Your task to perform on an android device: see creations saved in the google photos Image 0: 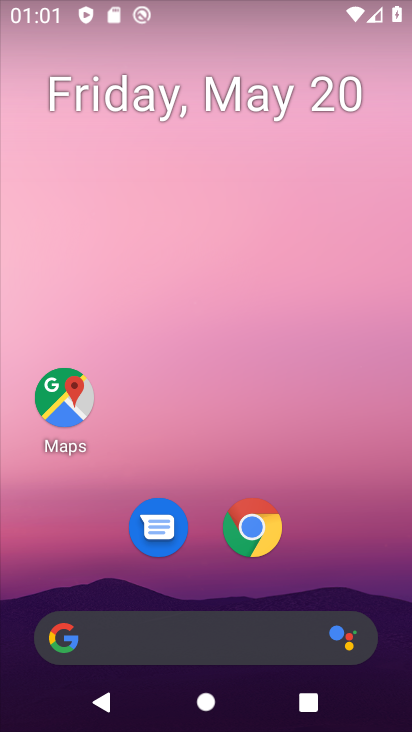
Step 0: drag from (208, 584) to (243, 56)
Your task to perform on an android device: see creations saved in the google photos Image 1: 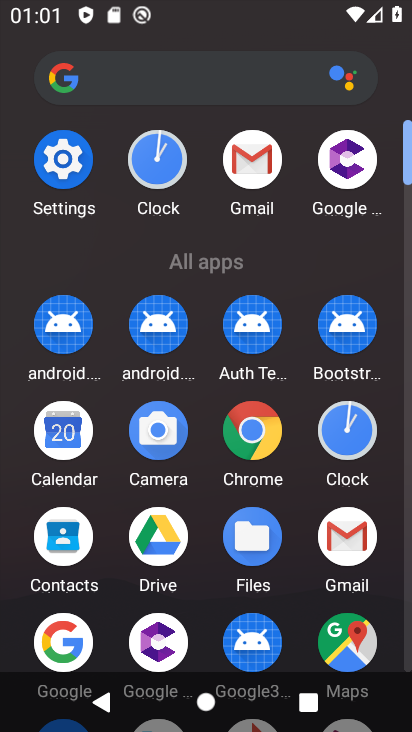
Step 1: drag from (204, 594) to (227, 93)
Your task to perform on an android device: see creations saved in the google photos Image 2: 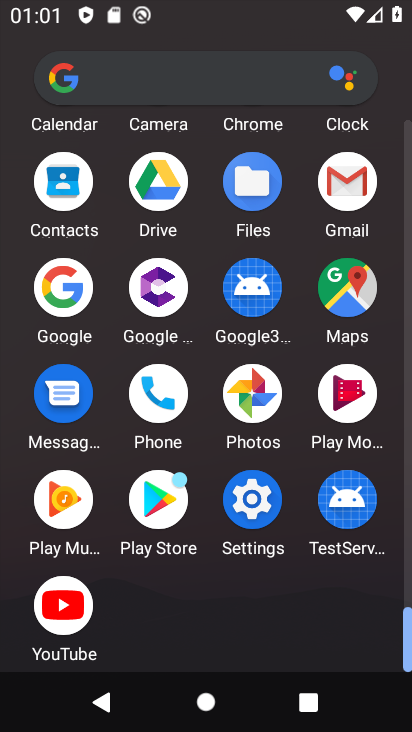
Step 2: click (248, 384)
Your task to perform on an android device: see creations saved in the google photos Image 3: 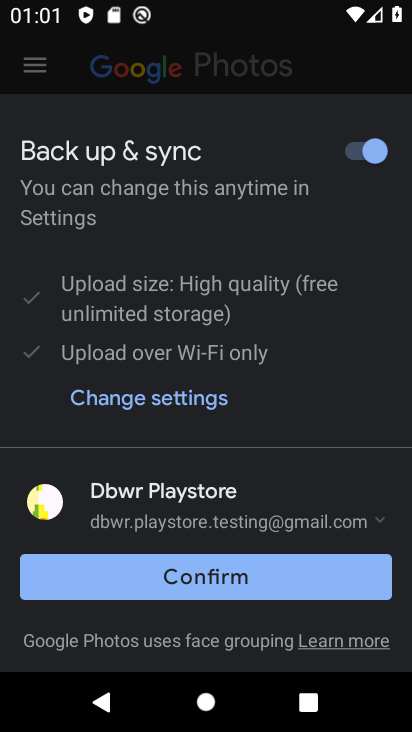
Step 3: click (210, 577)
Your task to perform on an android device: see creations saved in the google photos Image 4: 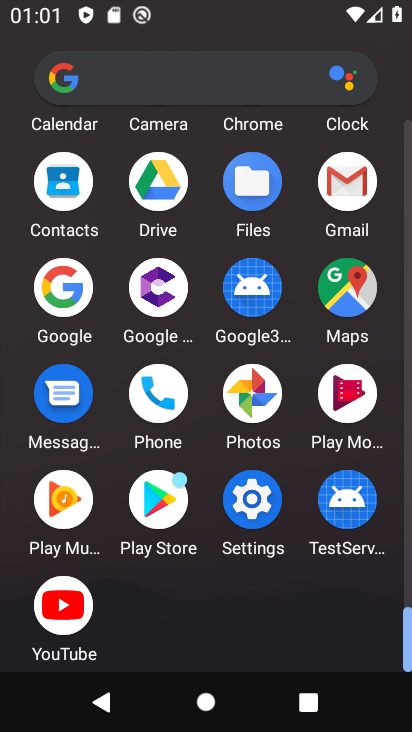
Step 4: click (252, 393)
Your task to perform on an android device: see creations saved in the google photos Image 5: 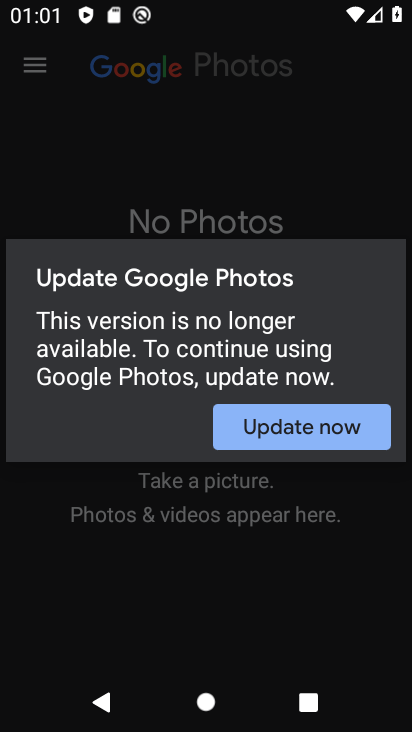
Step 5: click (296, 428)
Your task to perform on an android device: see creations saved in the google photos Image 6: 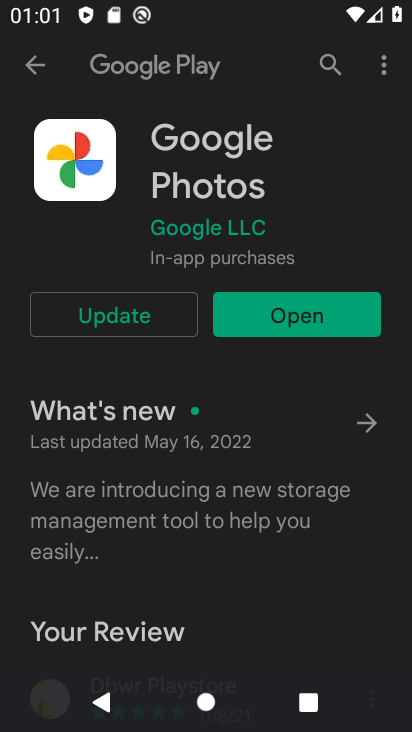
Step 6: click (124, 320)
Your task to perform on an android device: see creations saved in the google photos Image 7: 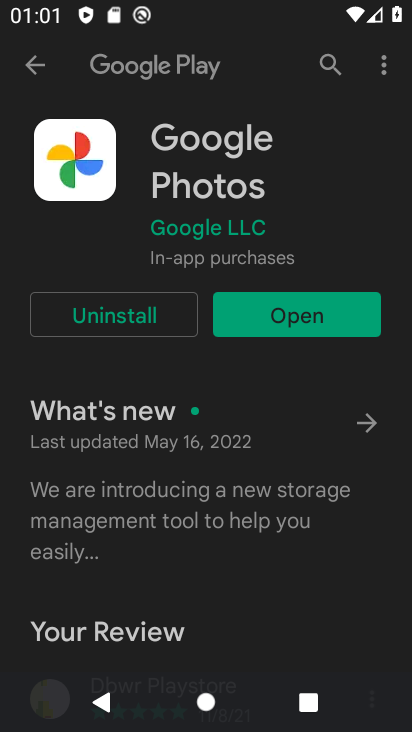
Step 7: click (285, 319)
Your task to perform on an android device: see creations saved in the google photos Image 8: 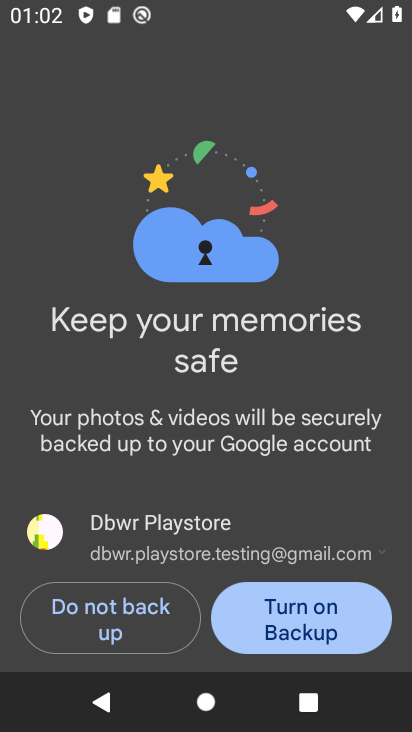
Step 8: click (276, 609)
Your task to perform on an android device: see creations saved in the google photos Image 9: 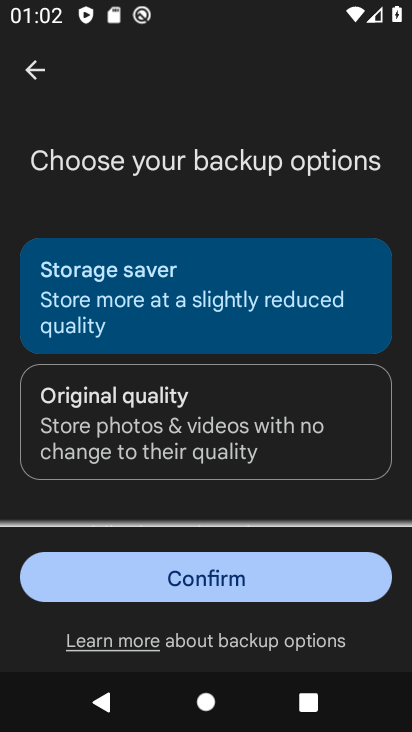
Step 9: click (141, 430)
Your task to perform on an android device: see creations saved in the google photos Image 10: 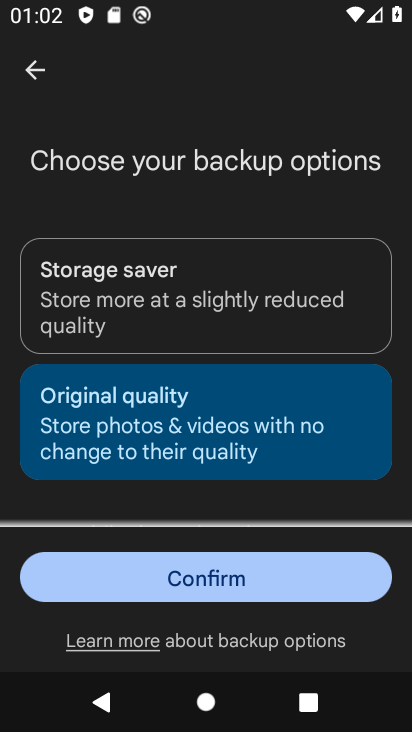
Step 10: task complete